Your task to perform on an android device: Open internet settings Image 0: 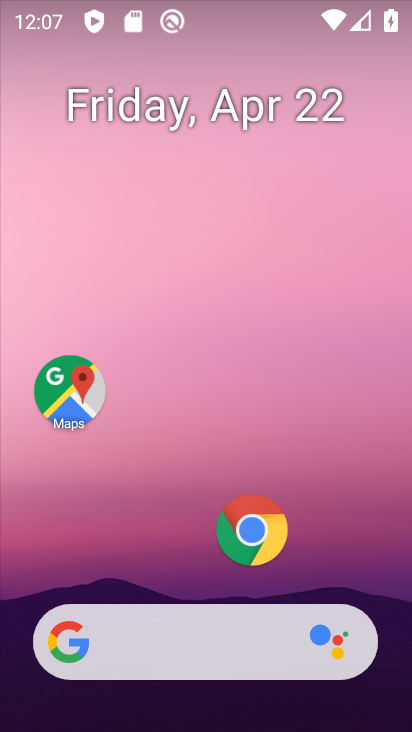
Step 0: drag from (228, 724) to (187, 81)
Your task to perform on an android device: Open internet settings Image 1: 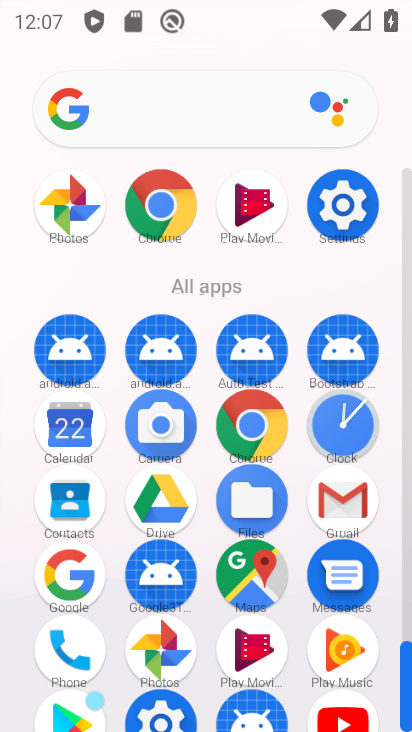
Step 1: click (337, 196)
Your task to perform on an android device: Open internet settings Image 2: 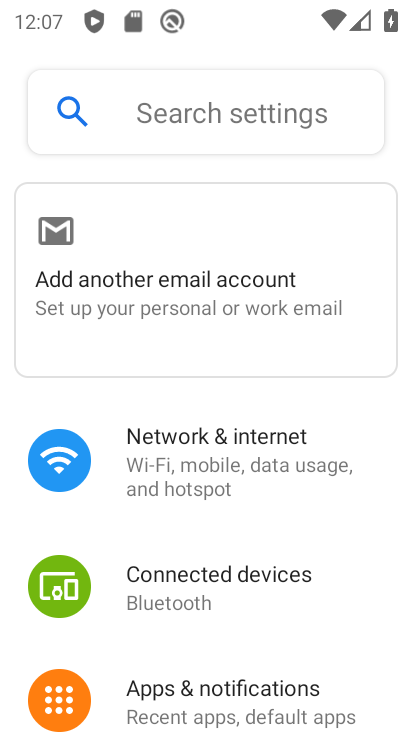
Step 2: click (188, 466)
Your task to perform on an android device: Open internet settings Image 3: 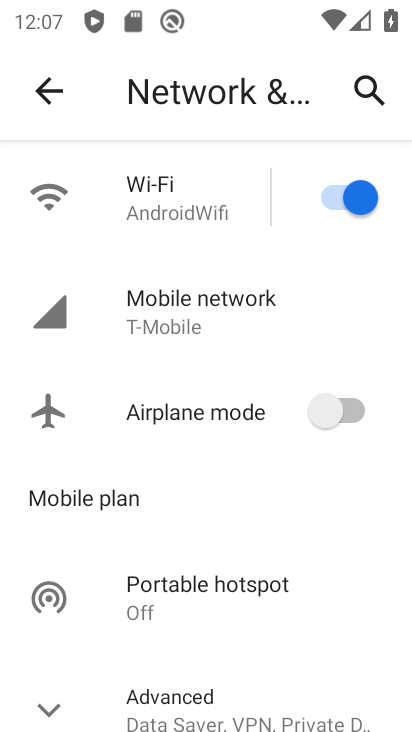
Step 3: task complete